Your task to perform on an android device: turn on the 24-hour format for clock Image 0: 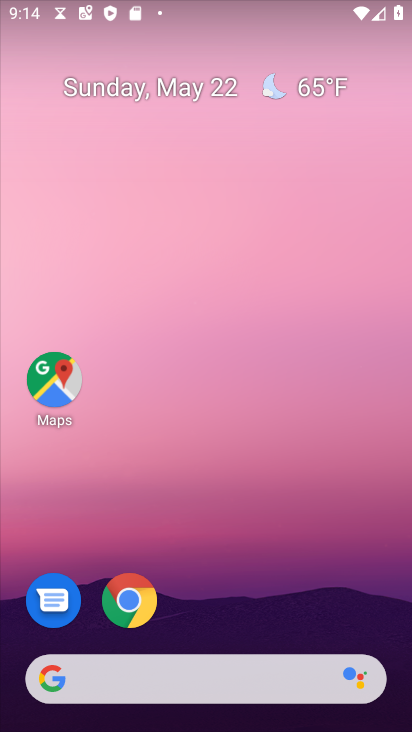
Step 0: drag from (196, 625) to (229, 165)
Your task to perform on an android device: turn on the 24-hour format for clock Image 1: 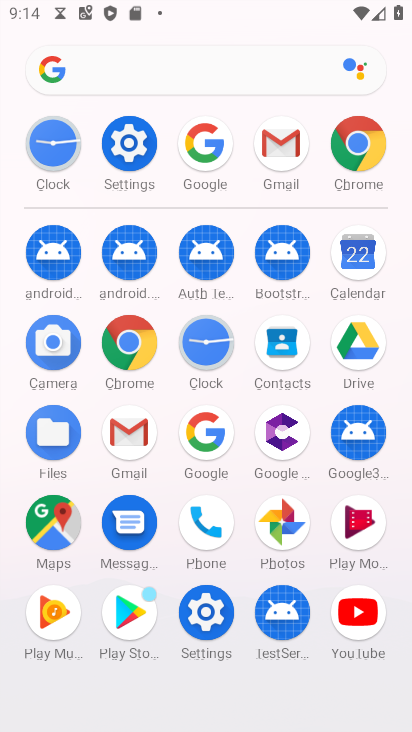
Step 1: click (191, 345)
Your task to perform on an android device: turn on the 24-hour format for clock Image 2: 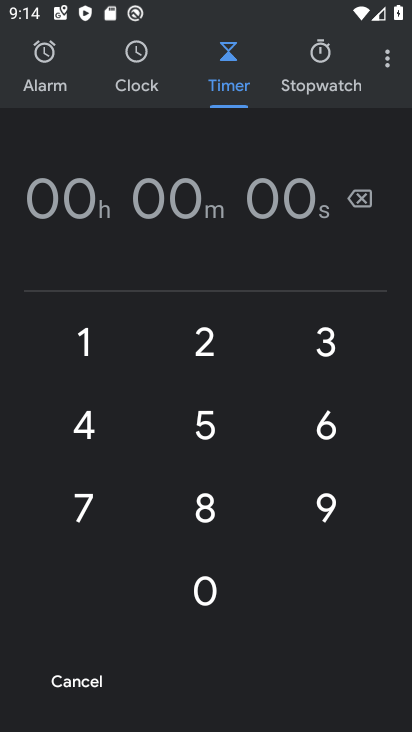
Step 2: click (390, 63)
Your task to perform on an android device: turn on the 24-hour format for clock Image 3: 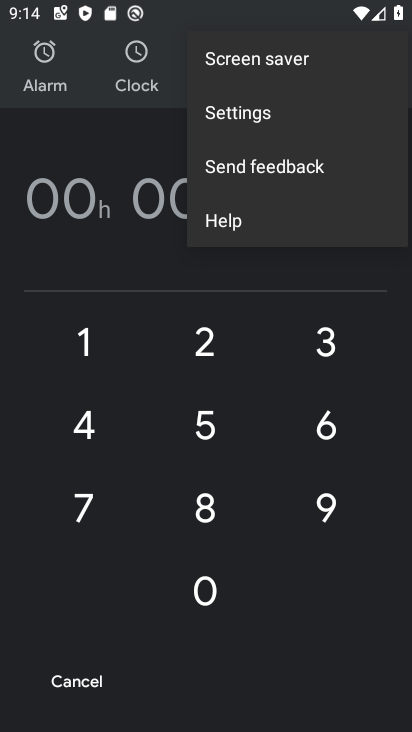
Step 3: click (272, 120)
Your task to perform on an android device: turn on the 24-hour format for clock Image 4: 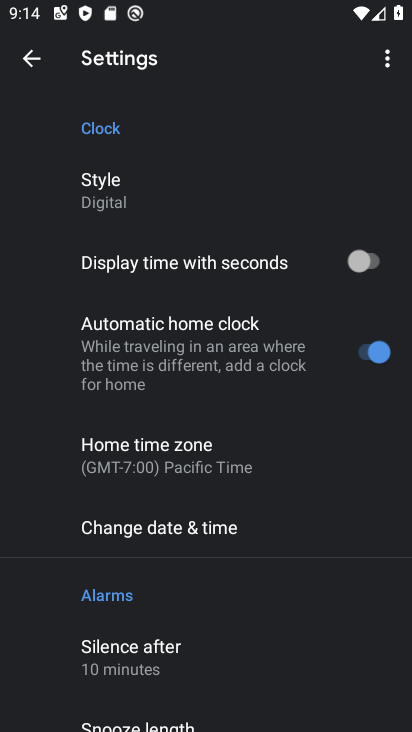
Step 4: click (182, 534)
Your task to perform on an android device: turn on the 24-hour format for clock Image 5: 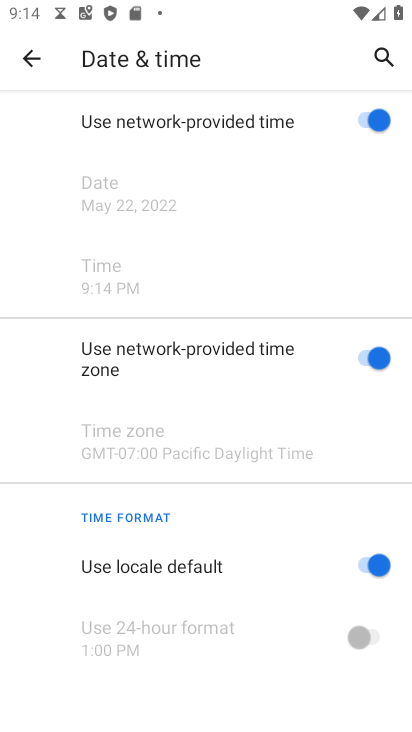
Step 5: click (365, 568)
Your task to perform on an android device: turn on the 24-hour format for clock Image 6: 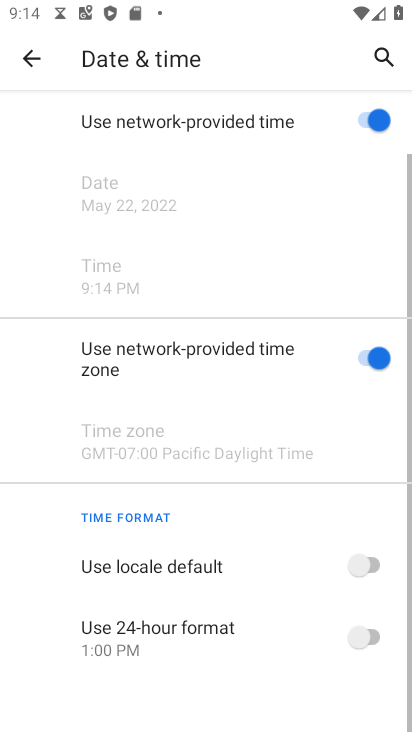
Step 6: click (379, 640)
Your task to perform on an android device: turn on the 24-hour format for clock Image 7: 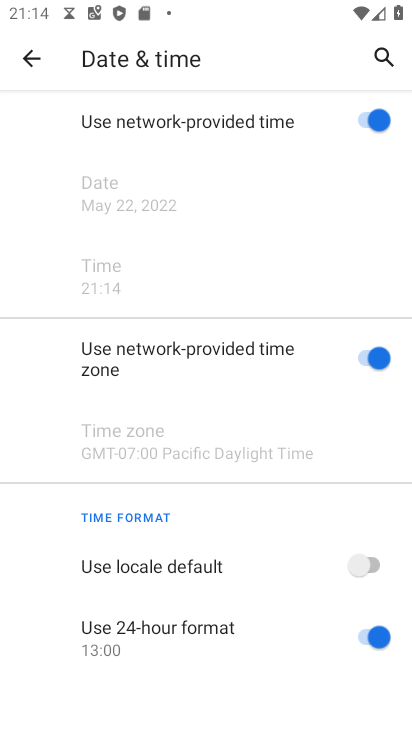
Step 7: task complete